Your task to perform on an android device: Open the map Image 0: 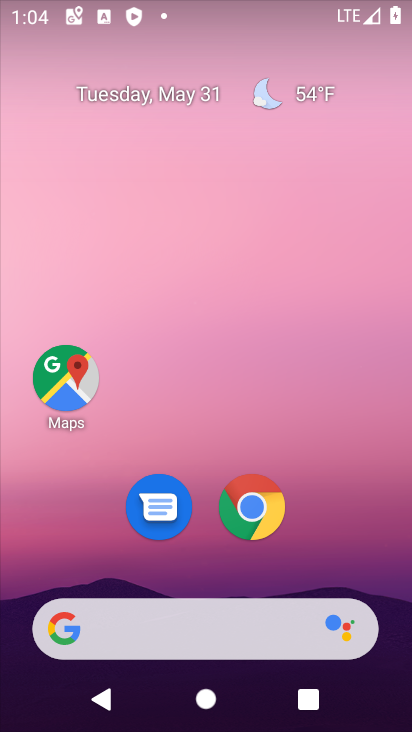
Step 0: drag from (387, 627) to (323, 39)
Your task to perform on an android device: Open the map Image 1: 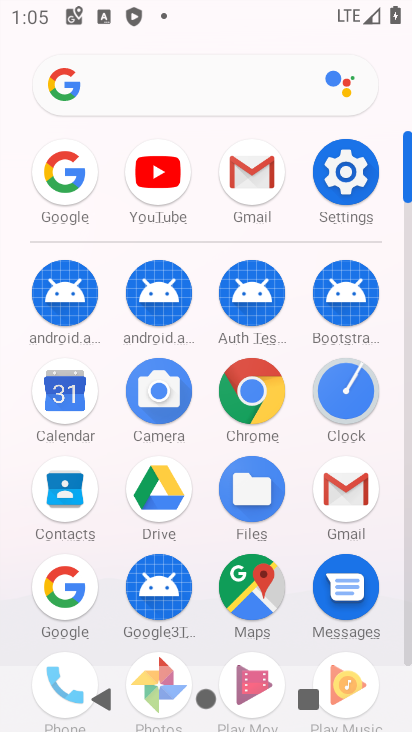
Step 1: click (239, 575)
Your task to perform on an android device: Open the map Image 2: 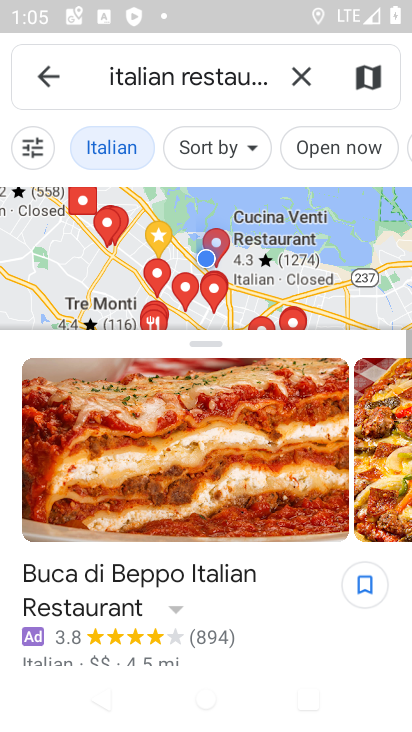
Step 2: click (301, 74)
Your task to perform on an android device: Open the map Image 3: 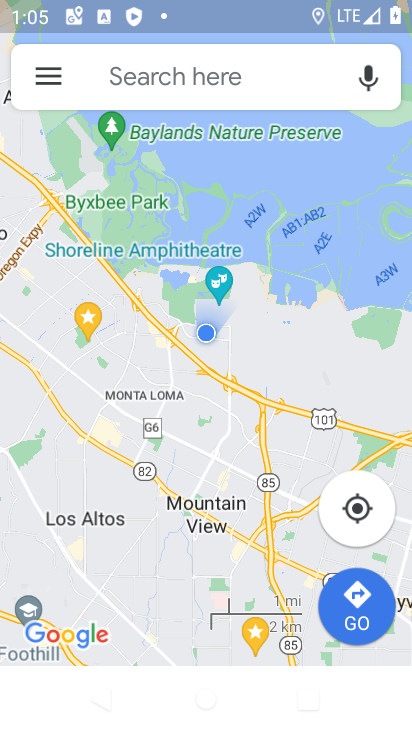
Step 3: task complete